Your task to perform on an android device: Go to CNN.com Image 0: 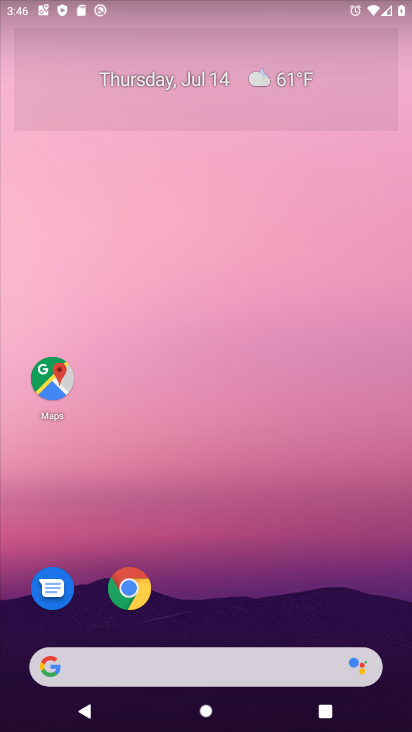
Step 0: press home button
Your task to perform on an android device: Go to CNN.com Image 1: 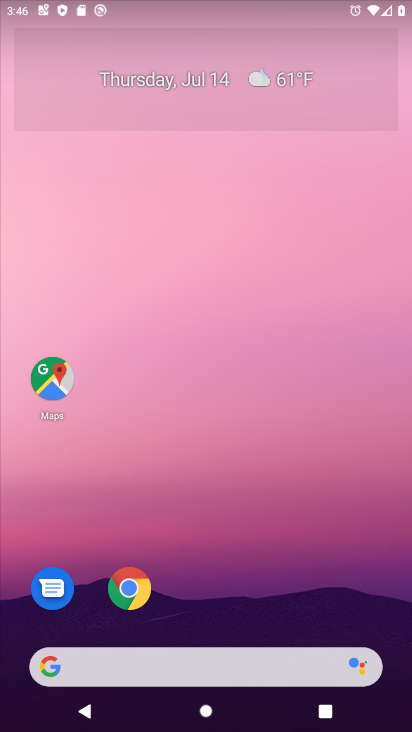
Step 1: click (39, 662)
Your task to perform on an android device: Go to CNN.com Image 2: 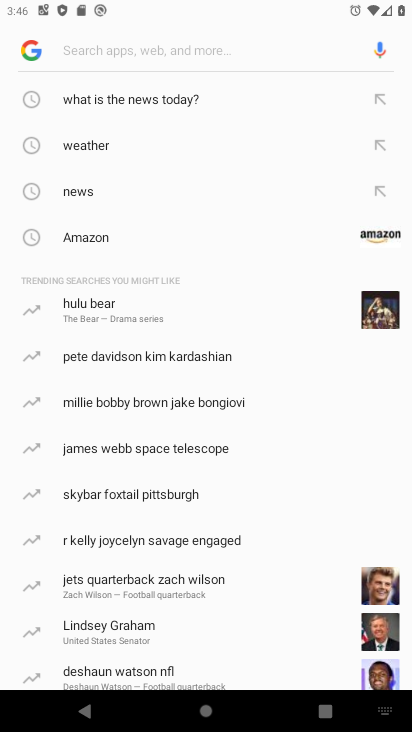
Step 2: type "CNN.com"
Your task to perform on an android device: Go to CNN.com Image 3: 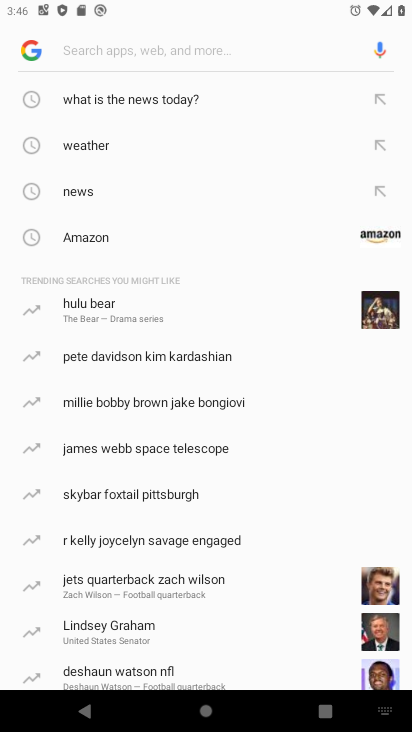
Step 3: click (75, 46)
Your task to perform on an android device: Go to CNN.com Image 4: 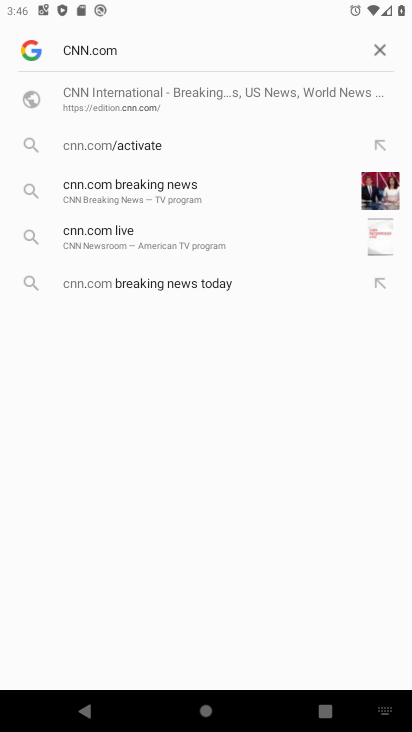
Step 4: press enter
Your task to perform on an android device: Go to CNN.com Image 5: 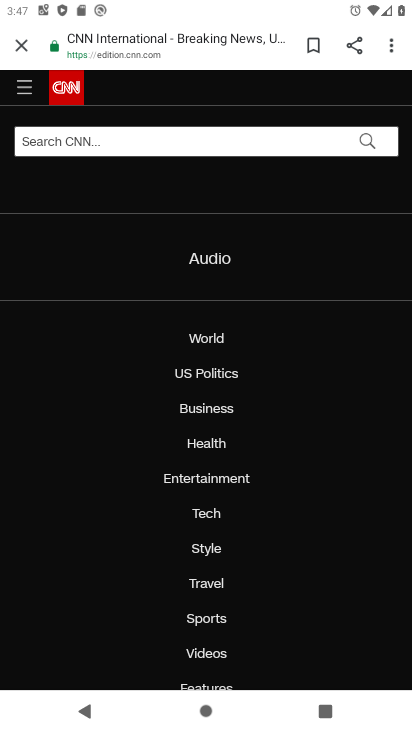
Step 5: task complete